Your task to perform on an android device: Open battery settings Image 0: 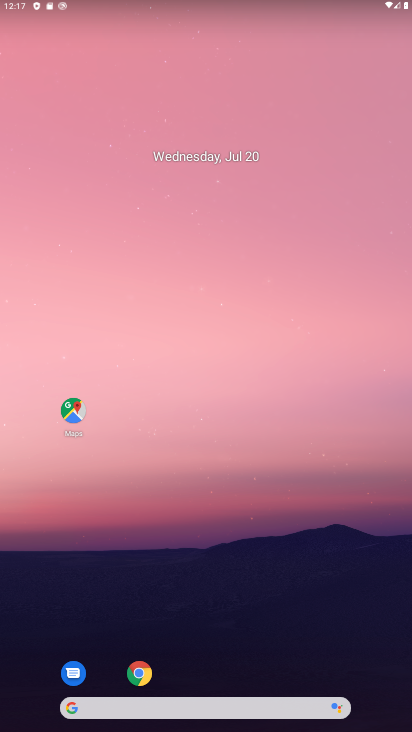
Step 0: drag from (202, 647) to (223, 10)
Your task to perform on an android device: Open battery settings Image 1: 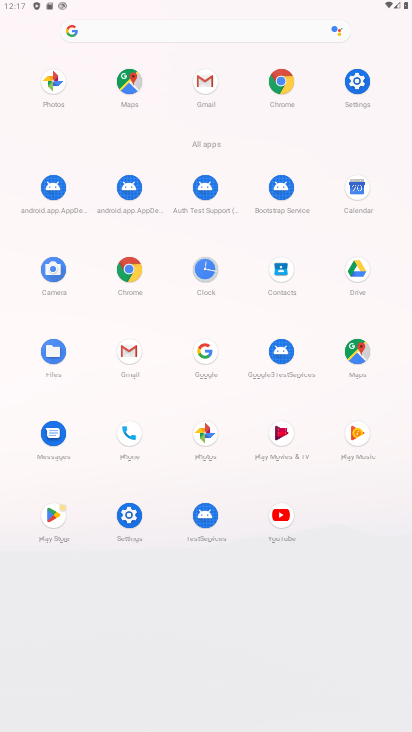
Step 1: click (359, 79)
Your task to perform on an android device: Open battery settings Image 2: 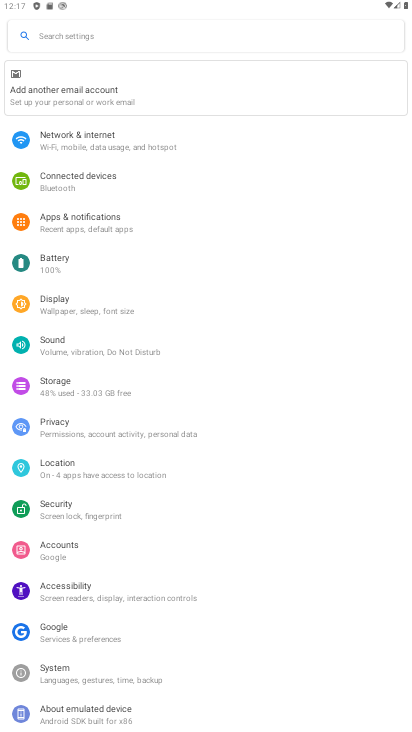
Step 2: click (73, 265)
Your task to perform on an android device: Open battery settings Image 3: 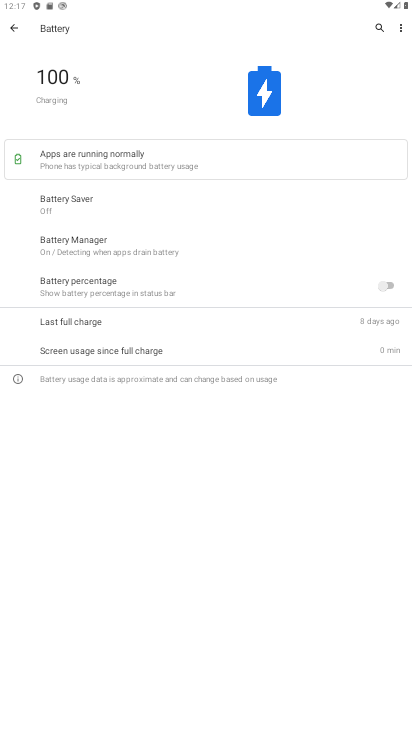
Step 3: task complete